Your task to perform on an android device: turn on wifi Image 0: 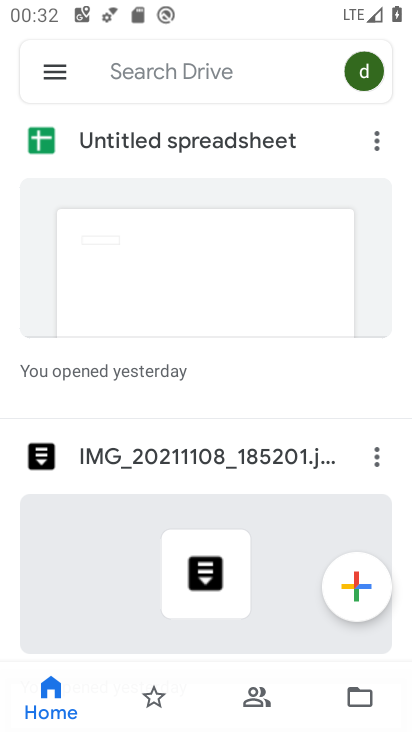
Step 0: drag from (267, 4) to (329, 481)
Your task to perform on an android device: turn on wifi Image 1: 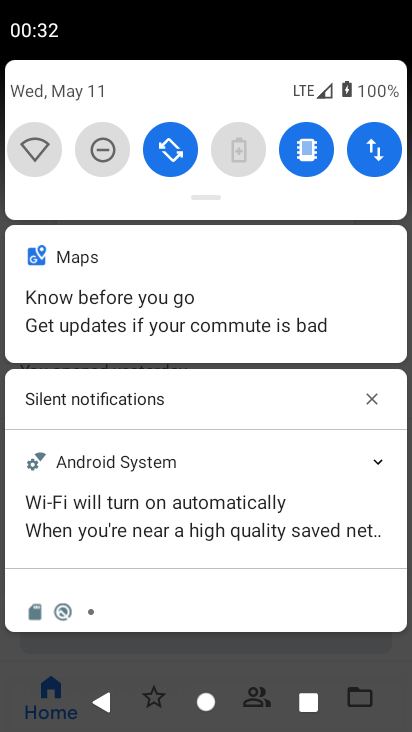
Step 1: drag from (200, 183) to (228, 542)
Your task to perform on an android device: turn on wifi Image 2: 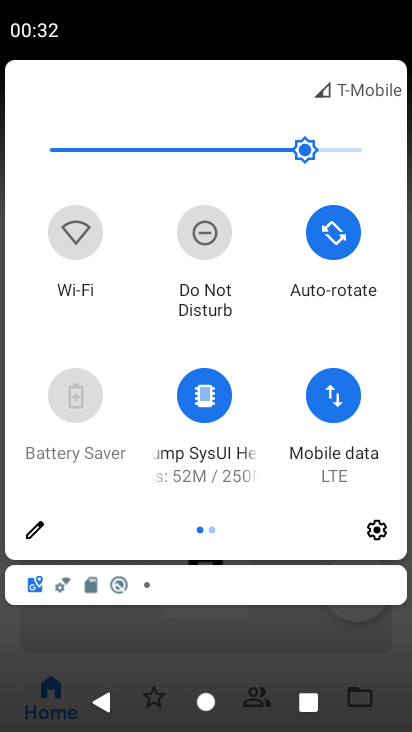
Step 2: click (74, 217)
Your task to perform on an android device: turn on wifi Image 3: 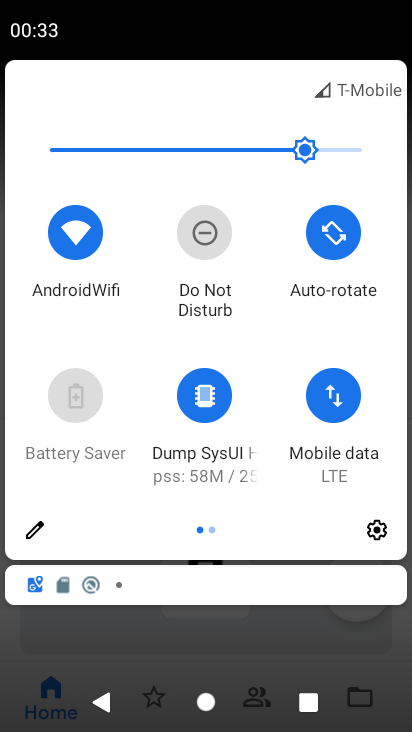
Step 3: task complete